Your task to perform on an android device: Add "usb-a to usb-b" to the cart on target, then select checkout. Image 0: 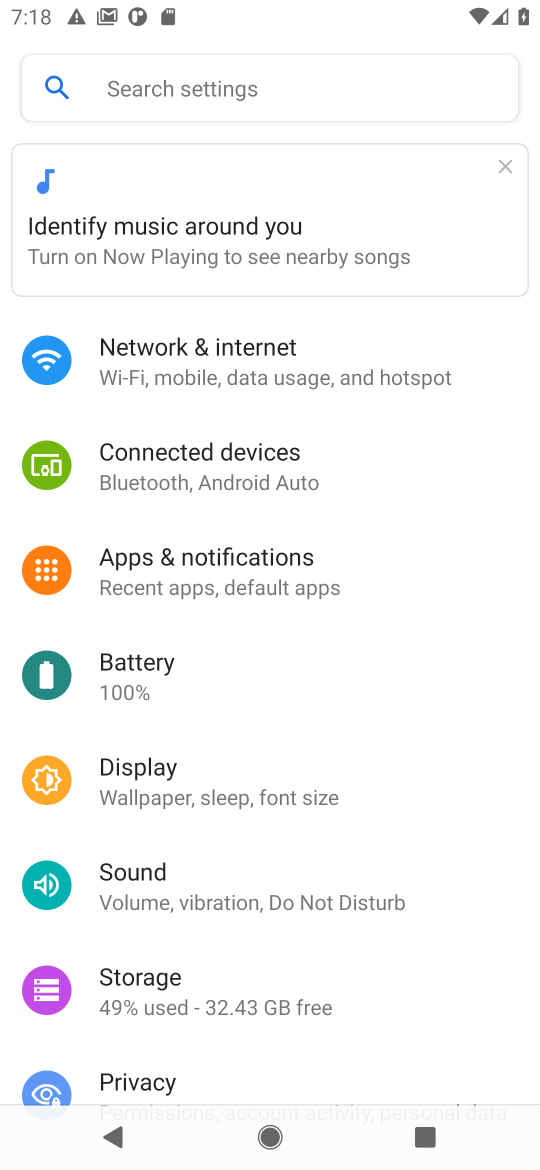
Step 0: press home button
Your task to perform on an android device: Add "usb-a to usb-b" to the cart on target, then select checkout. Image 1: 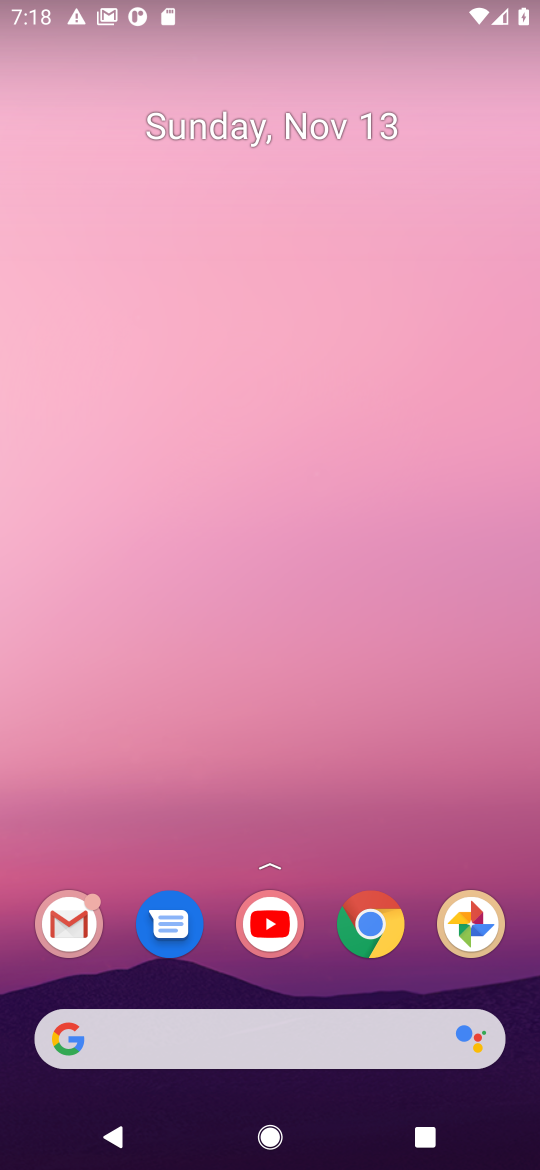
Step 1: click (372, 929)
Your task to perform on an android device: Add "usb-a to usb-b" to the cart on target, then select checkout. Image 2: 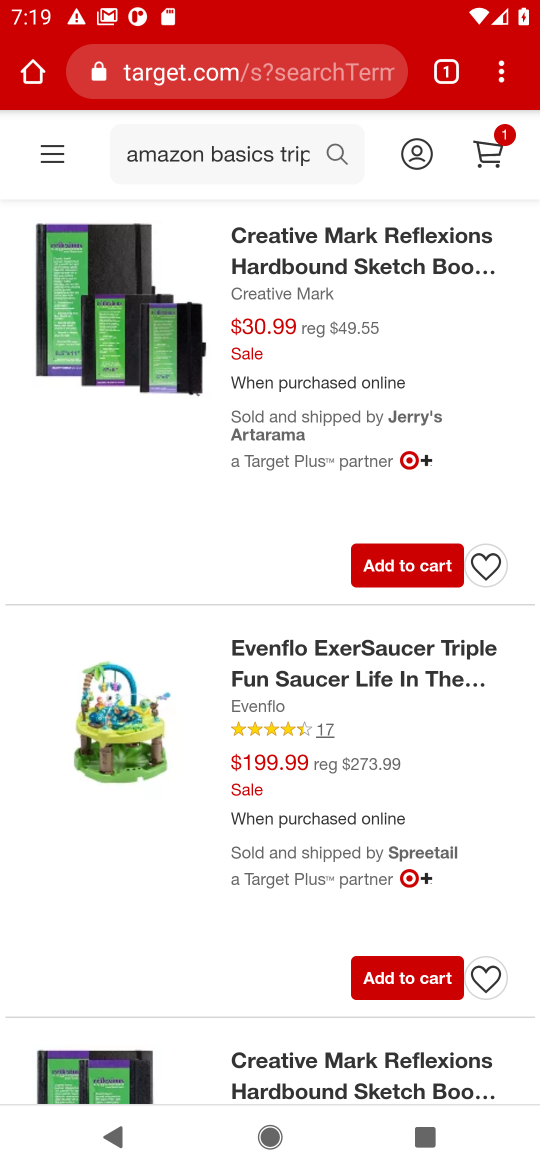
Step 2: click (334, 150)
Your task to perform on an android device: Add "usb-a to usb-b" to the cart on target, then select checkout. Image 3: 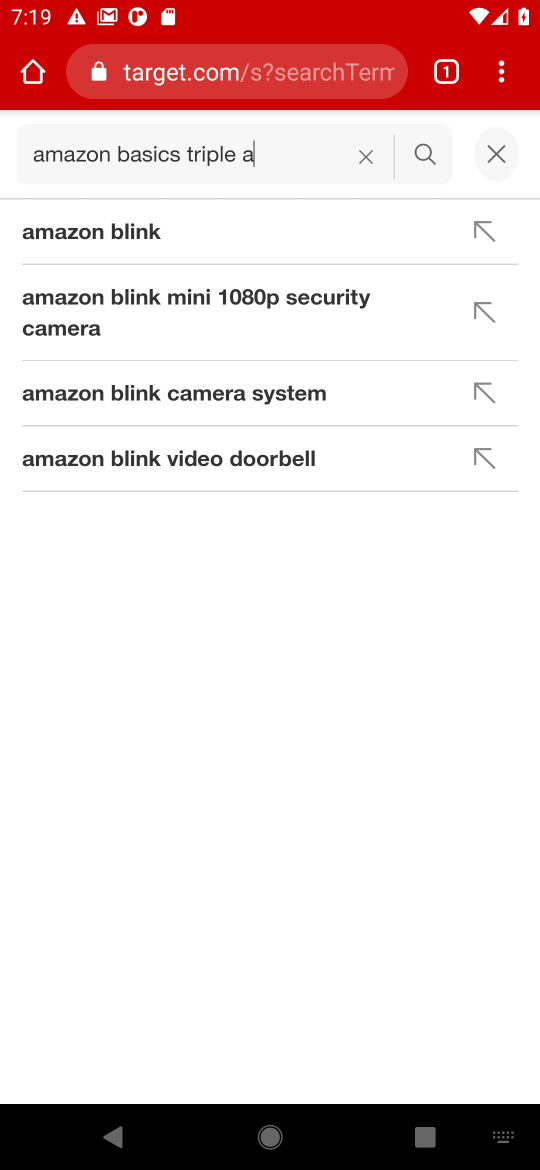
Step 3: click (354, 155)
Your task to perform on an android device: Add "usb-a to usb-b" to the cart on target, then select checkout. Image 4: 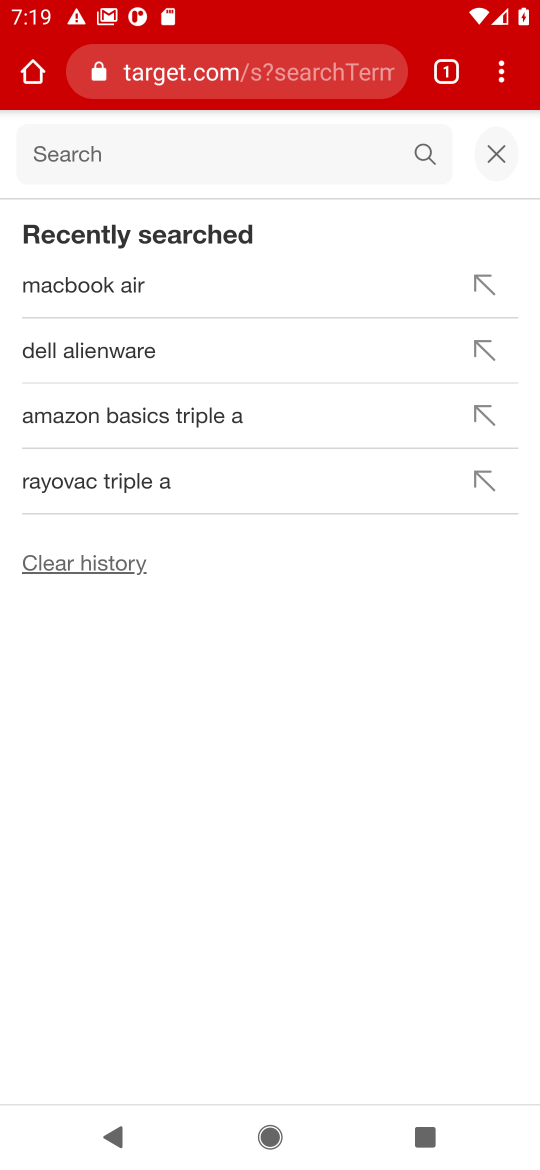
Step 4: type "usb-a to usb-b"
Your task to perform on an android device: Add "usb-a to usb-b" to the cart on target, then select checkout. Image 5: 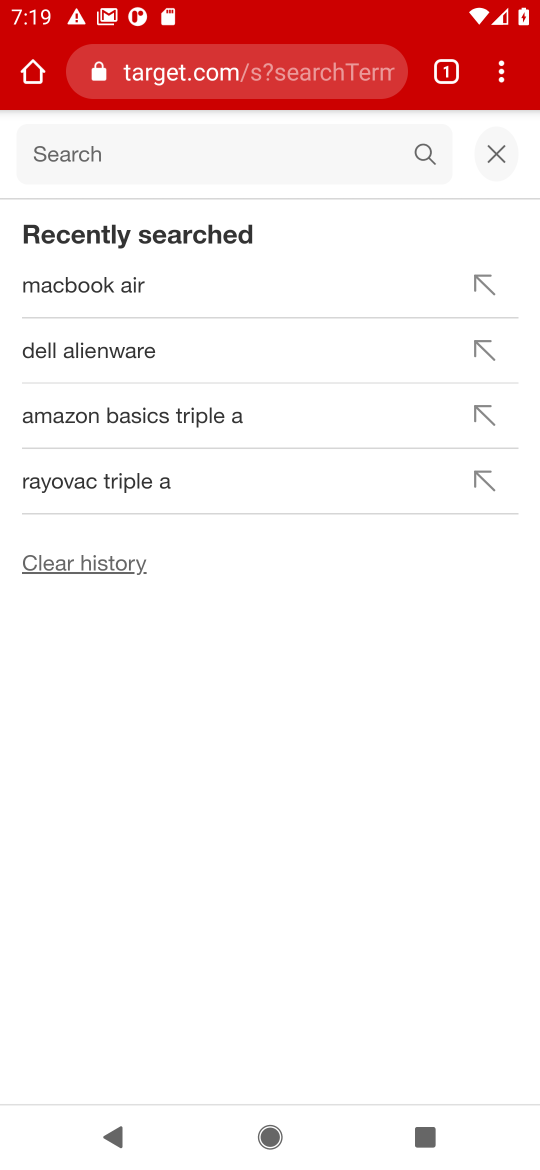
Step 5: click (102, 161)
Your task to perform on an android device: Add "usb-a to usb-b" to the cart on target, then select checkout. Image 6: 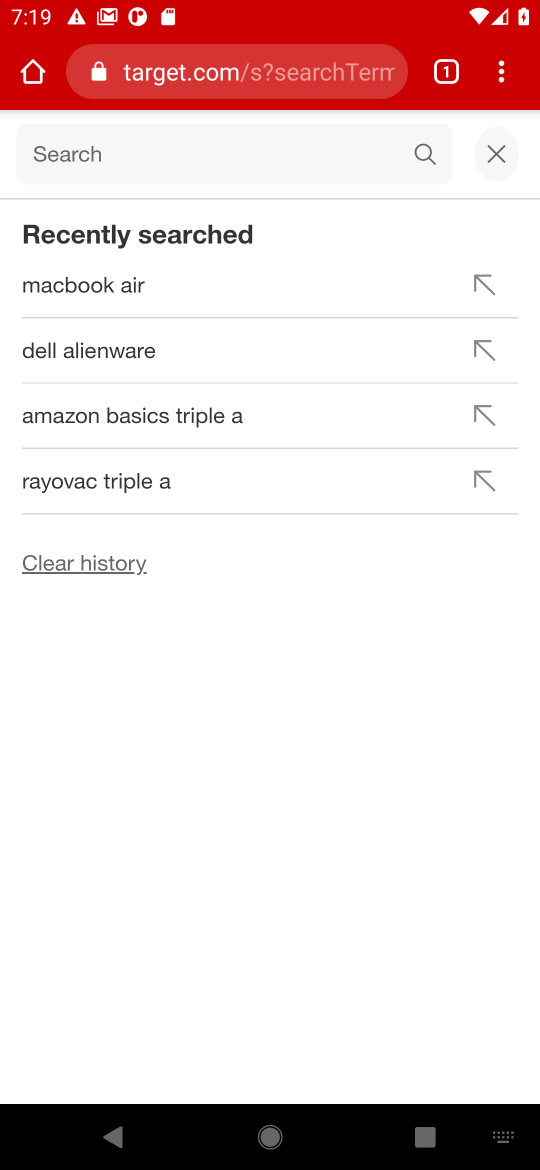
Step 6: type "usb-a to usb-b"
Your task to perform on an android device: Add "usb-a to usb-b" to the cart on target, then select checkout. Image 7: 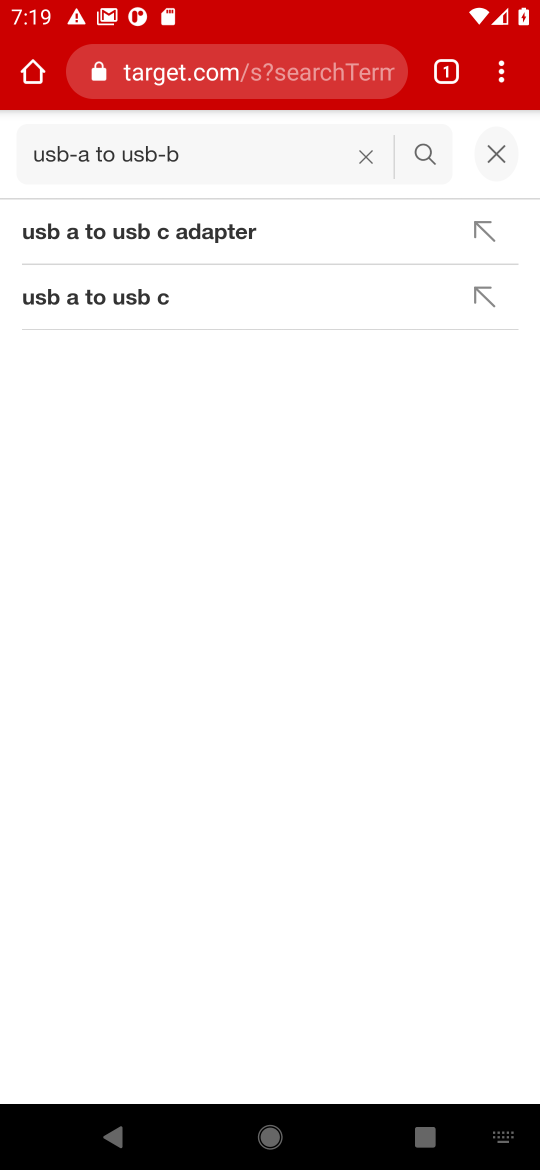
Step 7: click (416, 153)
Your task to perform on an android device: Add "usb-a to usb-b" to the cart on target, then select checkout. Image 8: 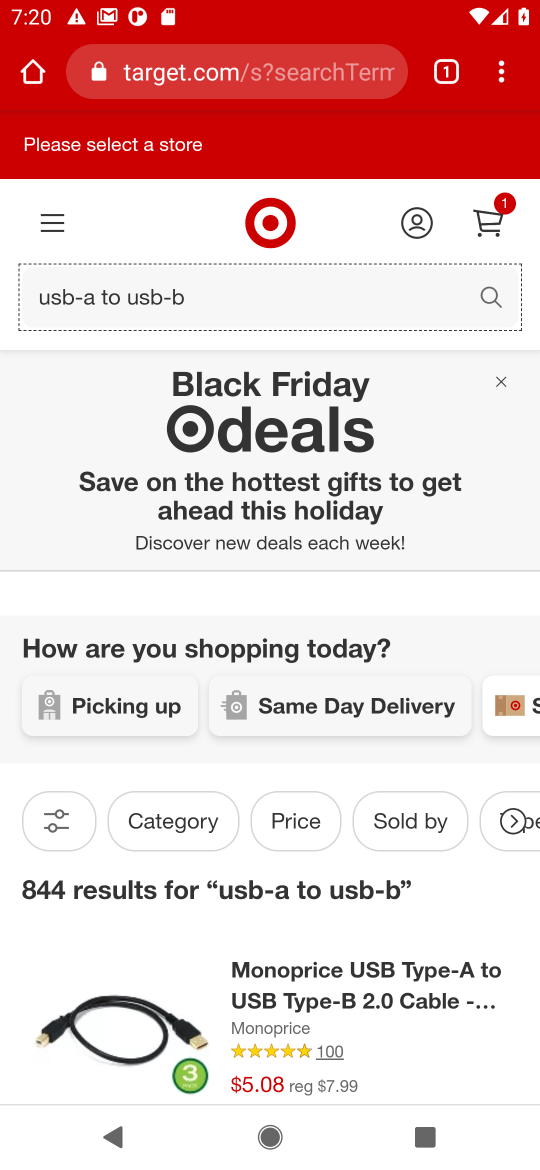
Step 8: drag from (241, 757) to (227, 487)
Your task to perform on an android device: Add "usb-a to usb-b" to the cart on target, then select checkout. Image 9: 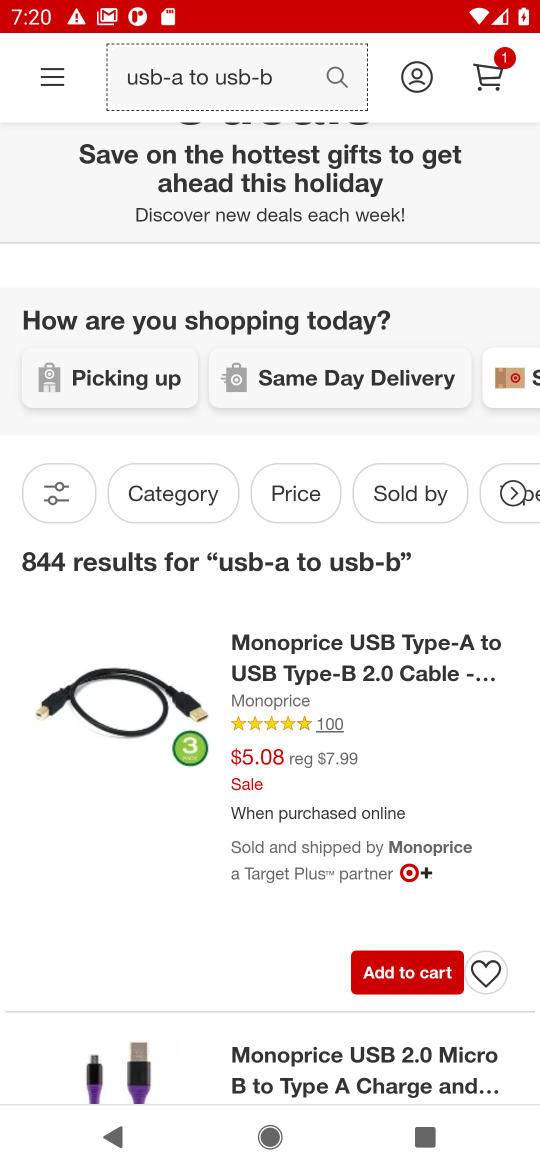
Step 9: click (387, 975)
Your task to perform on an android device: Add "usb-a to usb-b" to the cart on target, then select checkout. Image 10: 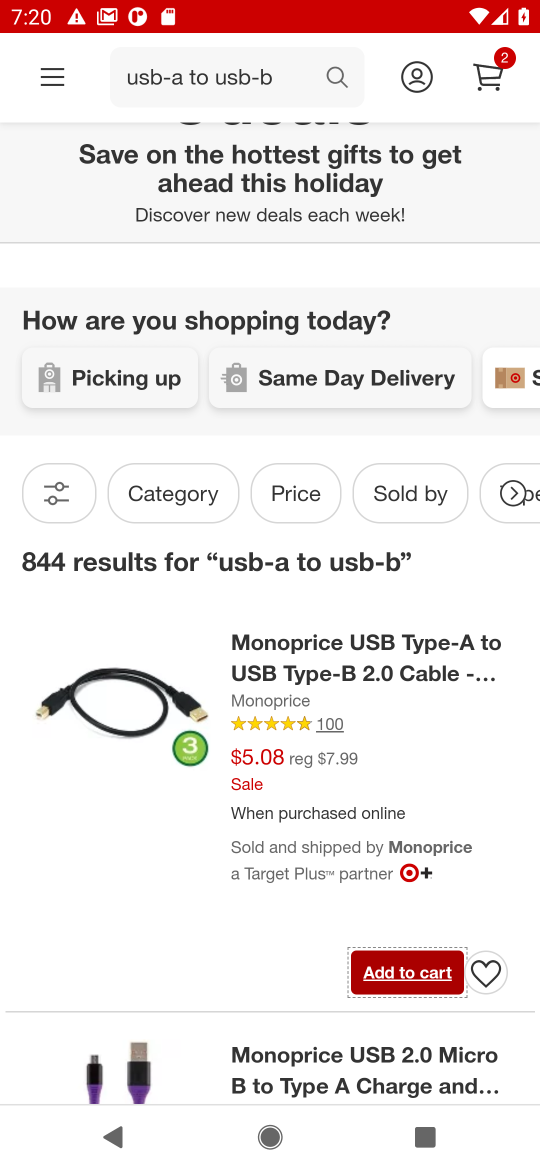
Step 10: click (479, 80)
Your task to perform on an android device: Add "usb-a to usb-b" to the cart on target, then select checkout. Image 11: 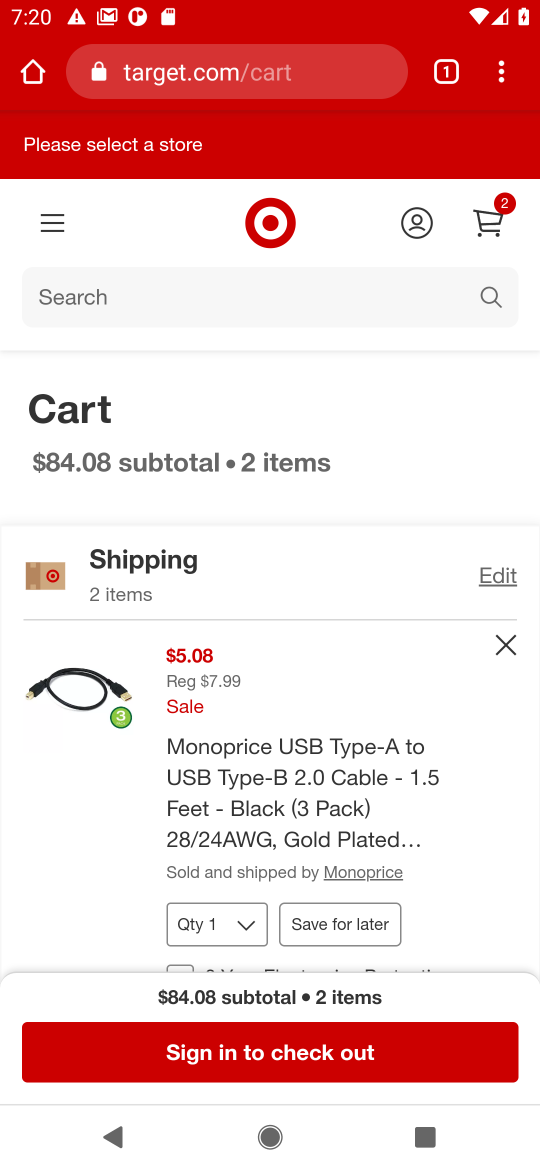
Step 11: click (240, 1047)
Your task to perform on an android device: Add "usb-a to usb-b" to the cart on target, then select checkout. Image 12: 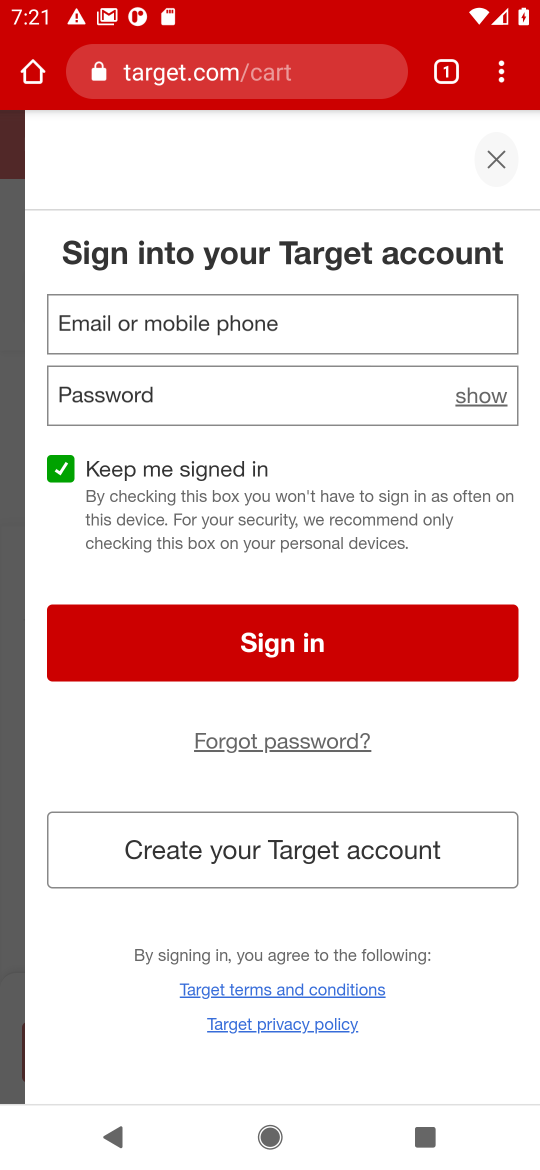
Step 12: task complete